Your task to perform on an android device: open chrome and create a bookmark for the current page Image 0: 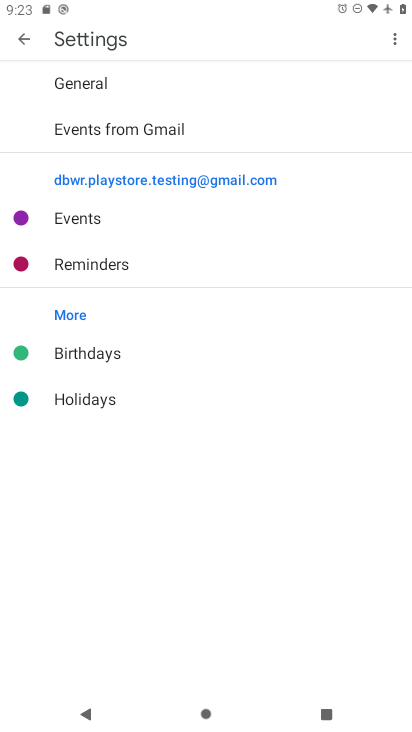
Step 0: press home button
Your task to perform on an android device: open chrome and create a bookmark for the current page Image 1: 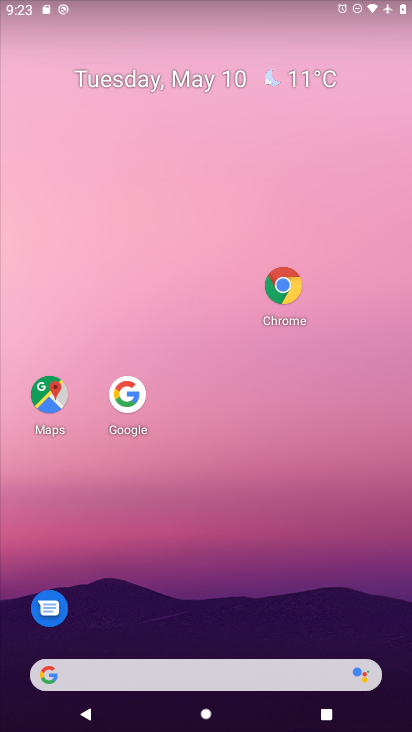
Step 1: click (287, 293)
Your task to perform on an android device: open chrome and create a bookmark for the current page Image 2: 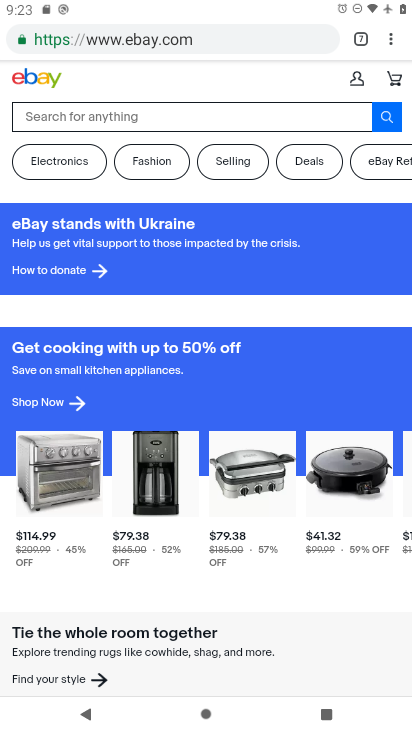
Step 2: click (387, 52)
Your task to perform on an android device: open chrome and create a bookmark for the current page Image 3: 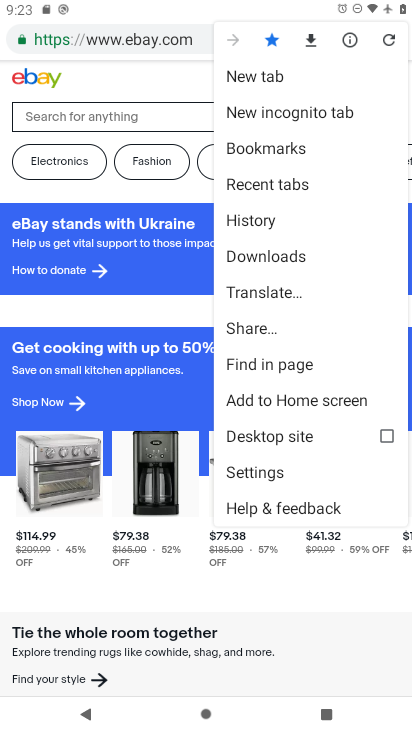
Step 3: task complete